Your task to perform on an android device: Find coffee shops on Maps Image 0: 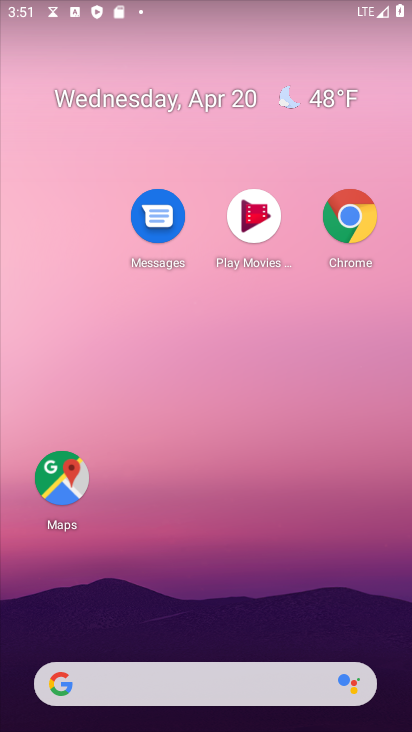
Step 0: click (83, 483)
Your task to perform on an android device: Find coffee shops on Maps Image 1: 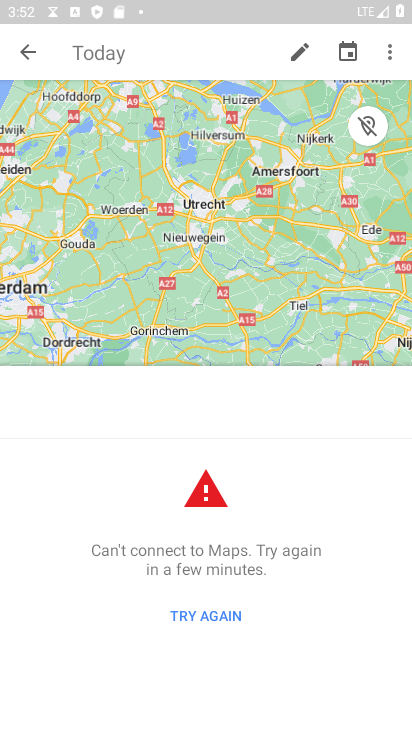
Step 1: click (208, 609)
Your task to perform on an android device: Find coffee shops on Maps Image 2: 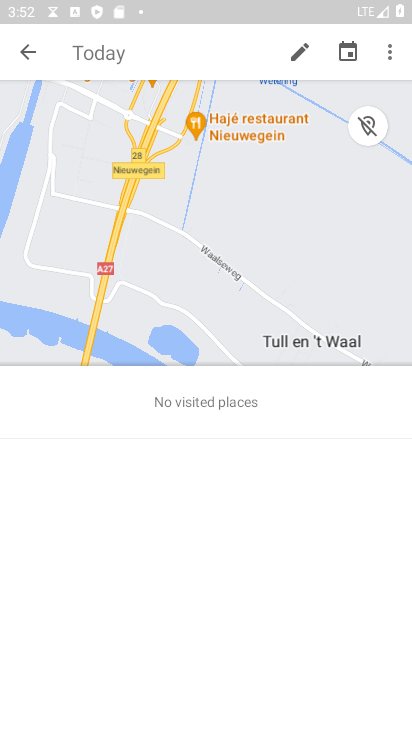
Step 2: click (23, 48)
Your task to perform on an android device: Find coffee shops on Maps Image 3: 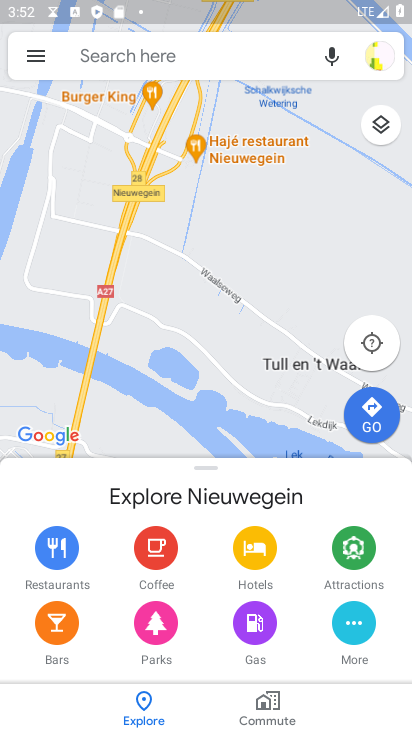
Step 3: click (174, 51)
Your task to perform on an android device: Find coffee shops on Maps Image 4: 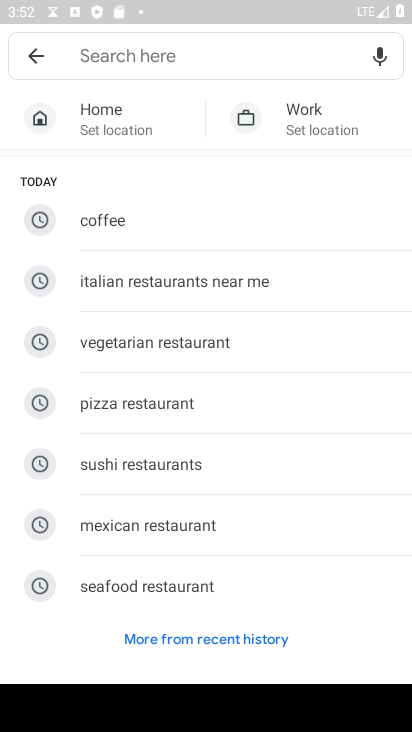
Step 4: click (151, 223)
Your task to perform on an android device: Find coffee shops on Maps Image 5: 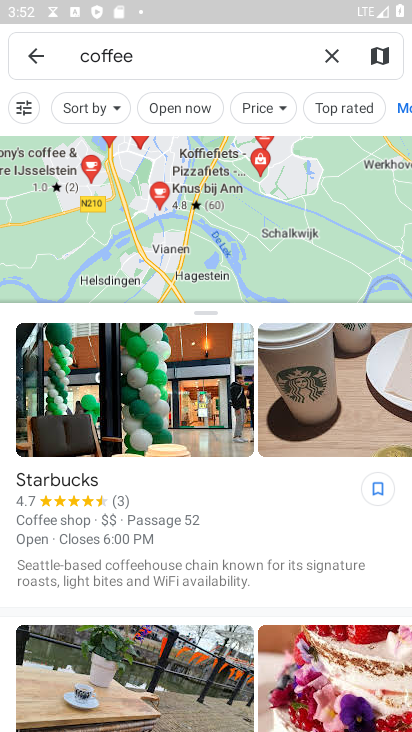
Step 5: task complete